Your task to perform on an android device: Turn off the flashlight Image 0: 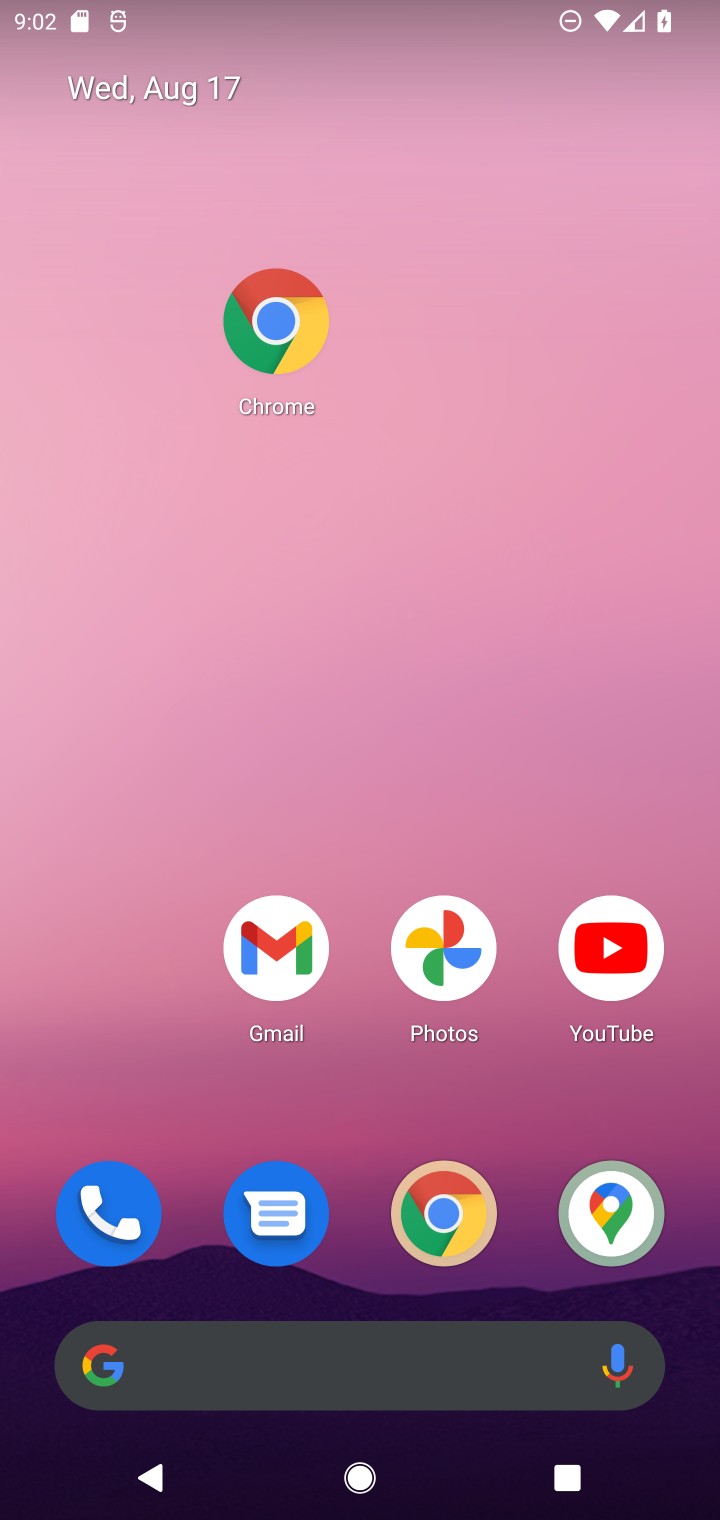
Step 0: drag from (357, 1276) to (346, 273)
Your task to perform on an android device: Turn off the flashlight Image 1: 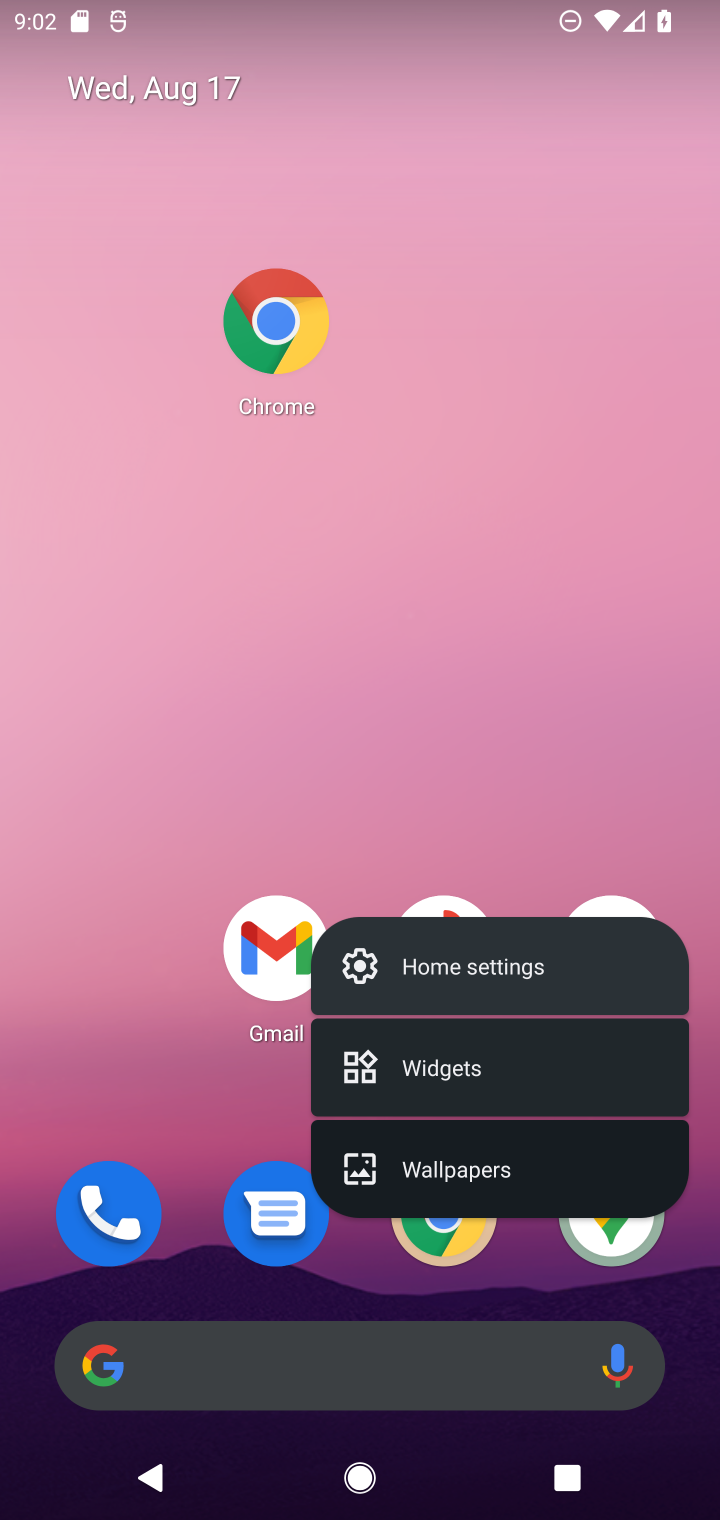
Step 1: click (373, 604)
Your task to perform on an android device: Turn off the flashlight Image 2: 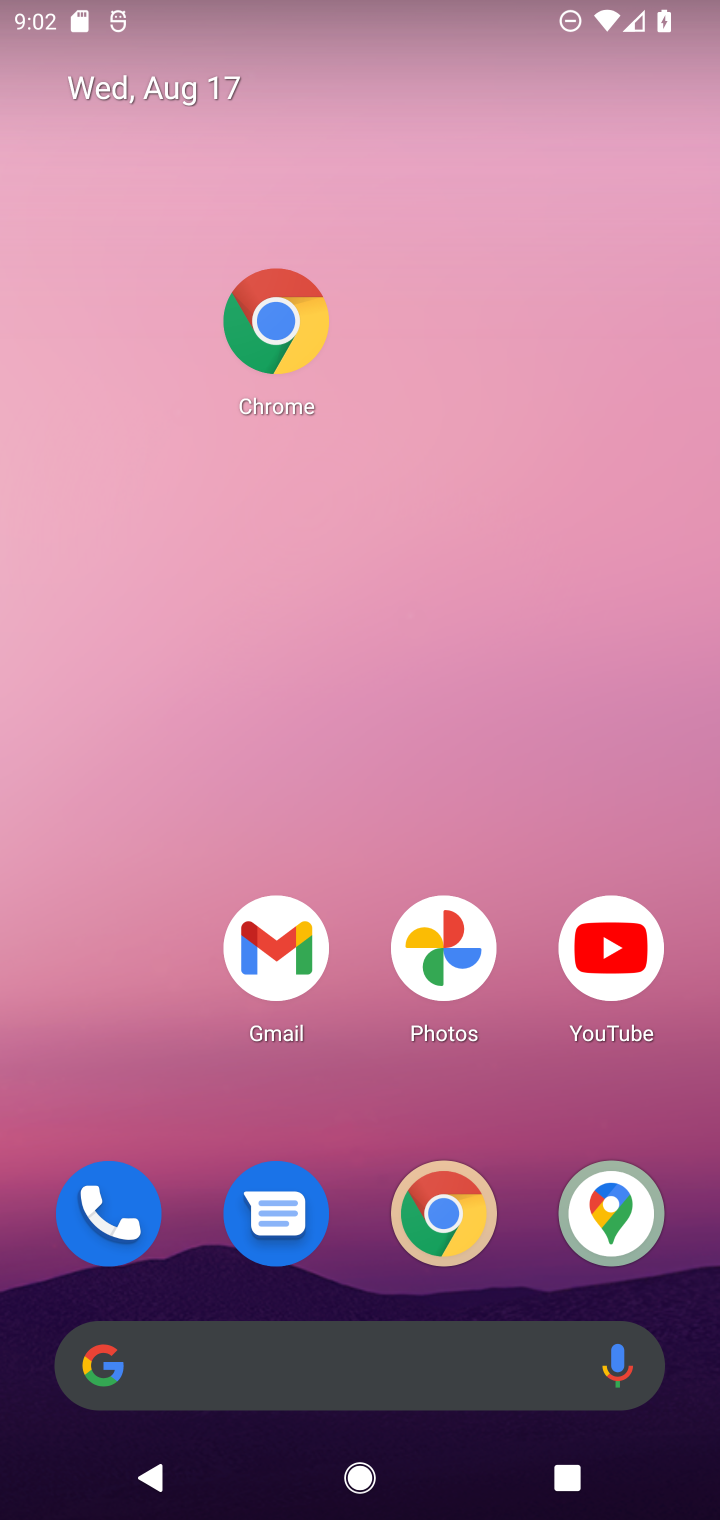
Step 2: drag from (360, 1290) to (416, 246)
Your task to perform on an android device: Turn off the flashlight Image 3: 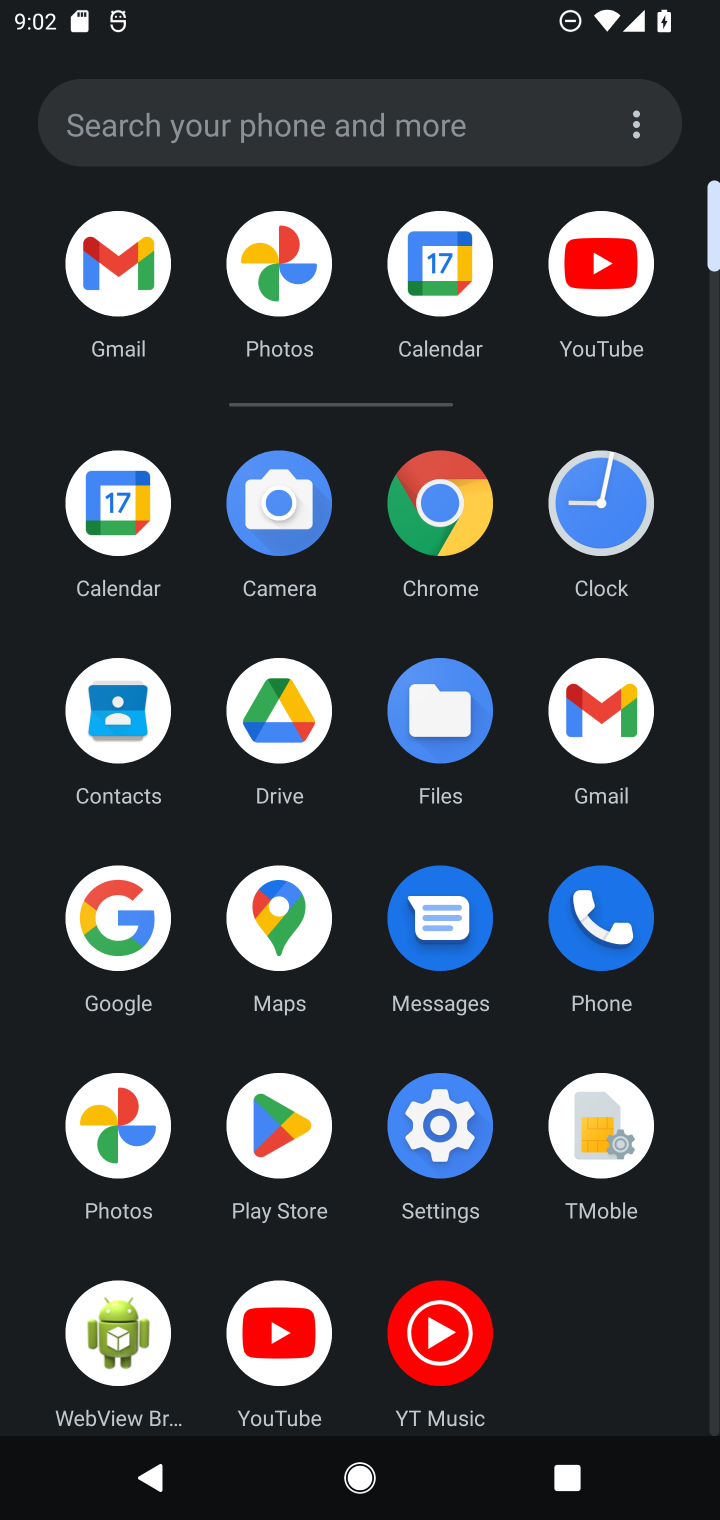
Step 3: click (464, 1112)
Your task to perform on an android device: Turn off the flashlight Image 4: 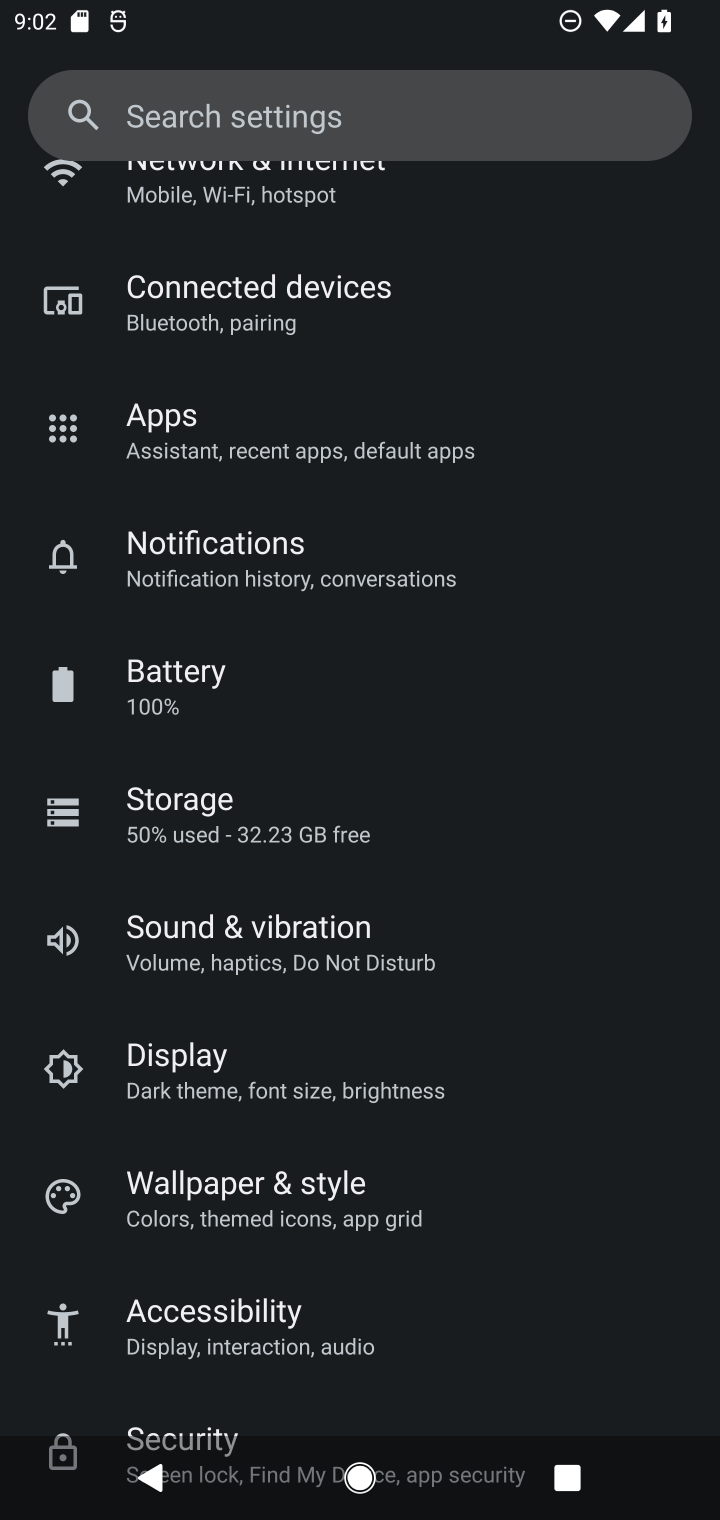
Step 4: task complete